Your task to perform on an android device: change the clock display to digital Image 0: 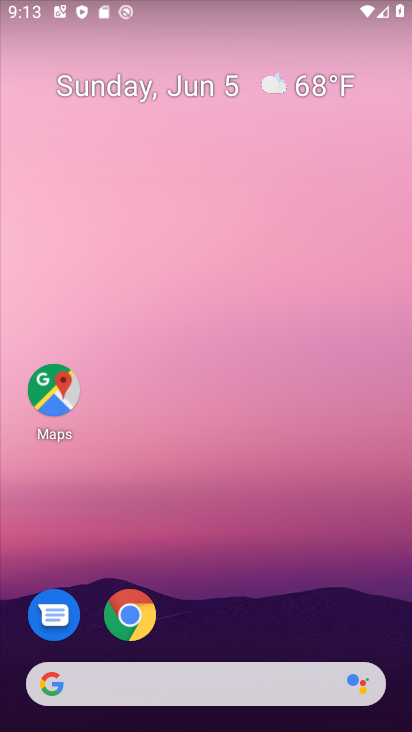
Step 0: drag from (150, 654) to (11, 300)
Your task to perform on an android device: change the clock display to digital Image 1: 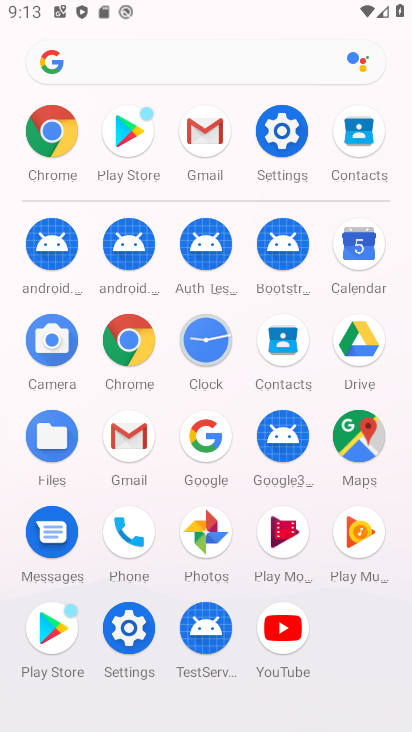
Step 1: click (195, 365)
Your task to perform on an android device: change the clock display to digital Image 2: 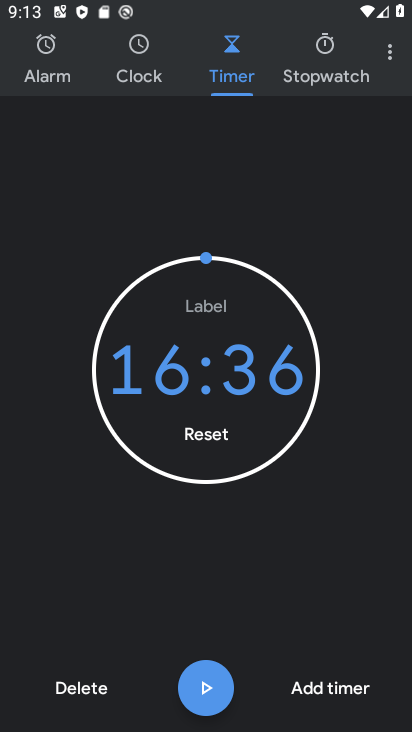
Step 2: click (390, 59)
Your task to perform on an android device: change the clock display to digital Image 3: 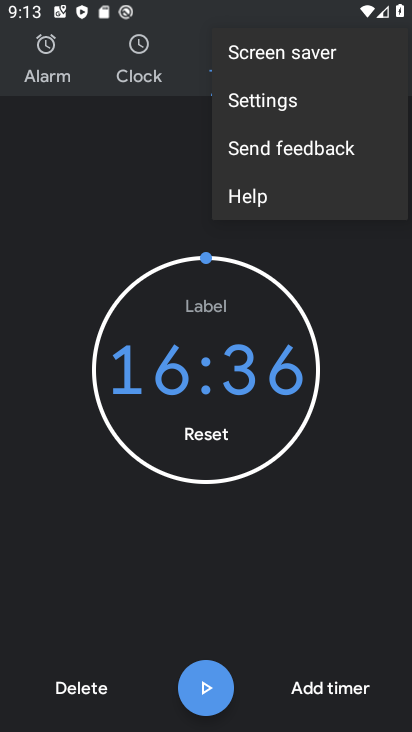
Step 3: click (299, 102)
Your task to perform on an android device: change the clock display to digital Image 4: 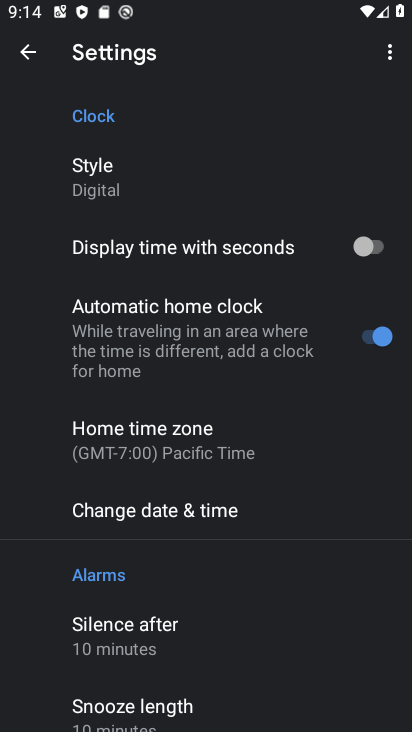
Step 4: task complete